Your task to perform on an android device: Do I have any events today? Image 0: 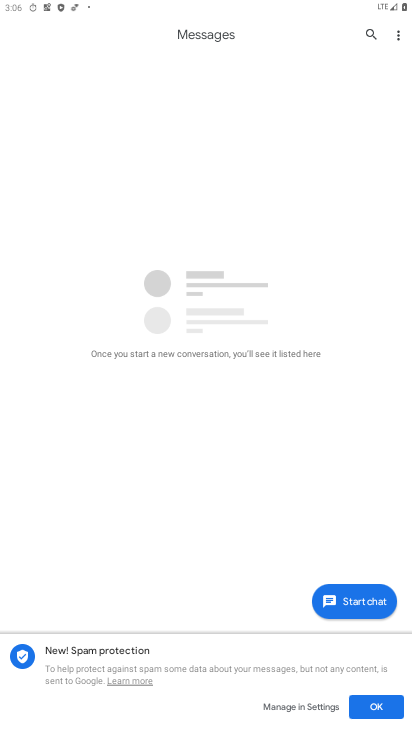
Step 0: press home button
Your task to perform on an android device: Do I have any events today? Image 1: 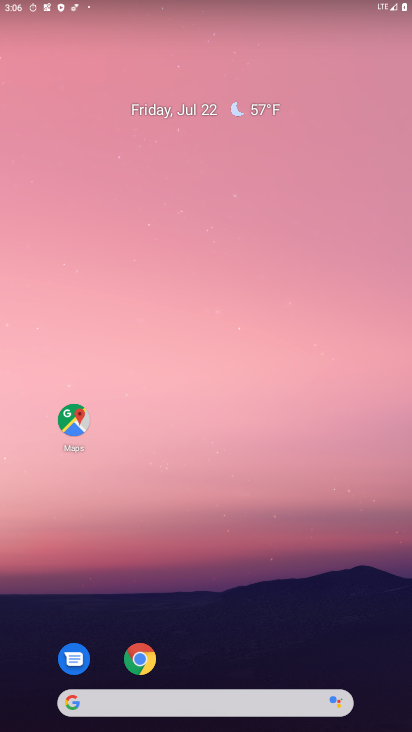
Step 1: drag from (262, 613) to (229, 127)
Your task to perform on an android device: Do I have any events today? Image 2: 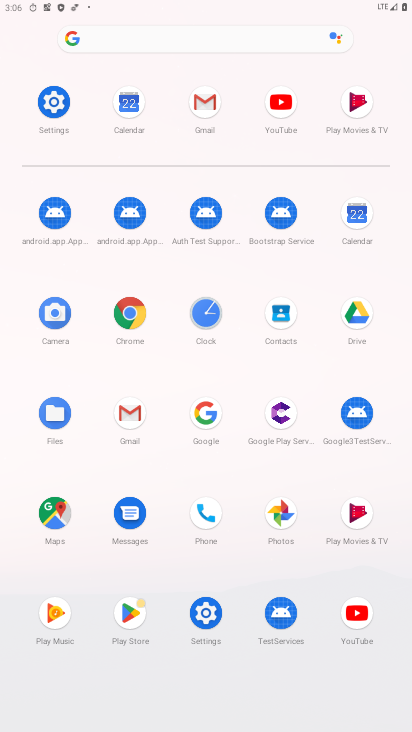
Step 2: click (363, 220)
Your task to perform on an android device: Do I have any events today? Image 3: 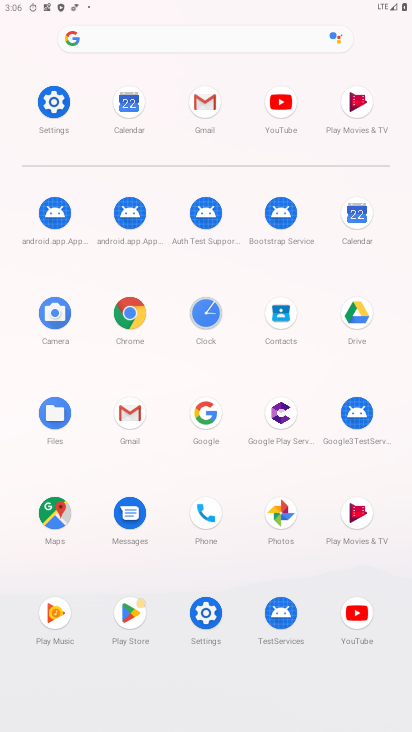
Step 3: click (363, 220)
Your task to perform on an android device: Do I have any events today? Image 4: 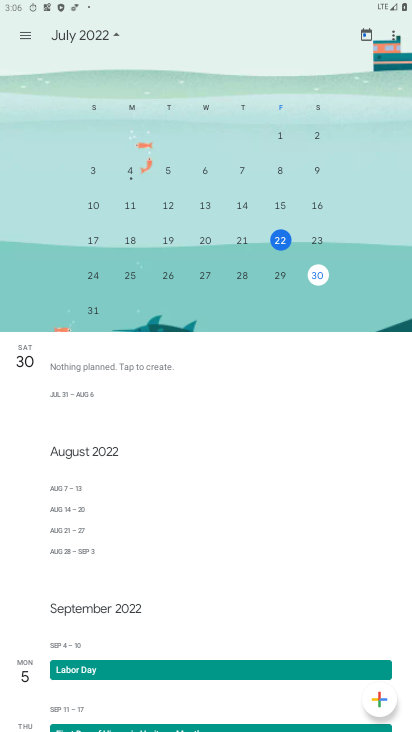
Step 4: click (285, 236)
Your task to perform on an android device: Do I have any events today? Image 5: 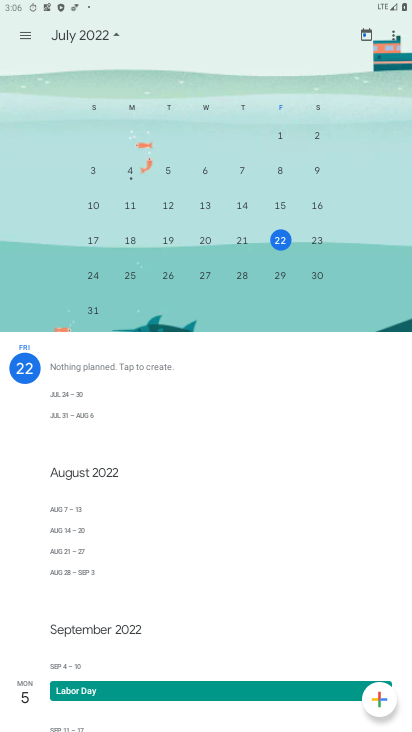
Step 5: task complete